Your task to perform on an android device: Go to internet settings Image 0: 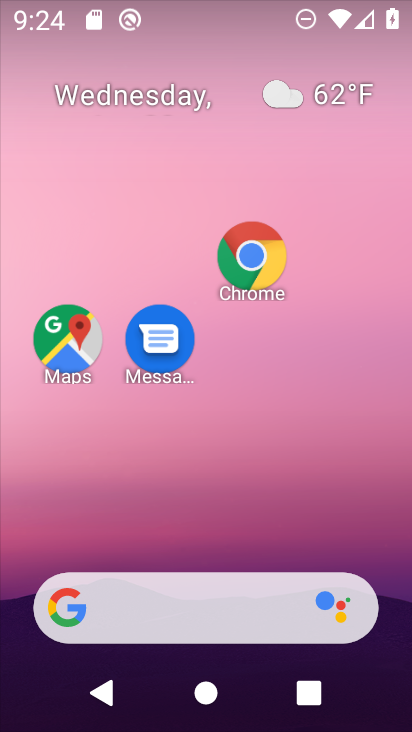
Step 0: drag from (227, 514) to (181, 22)
Your task to perform on an android device: Go to internet settings Image 1: 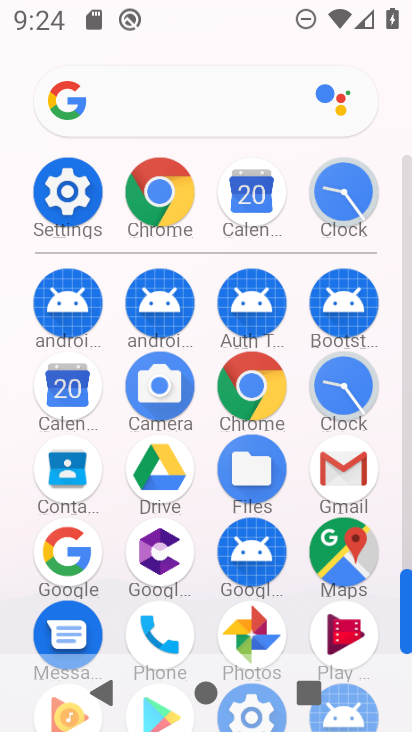
Step 1: click (66, 189)
Your task to perform on an android device: Go to internet settings Image 2: 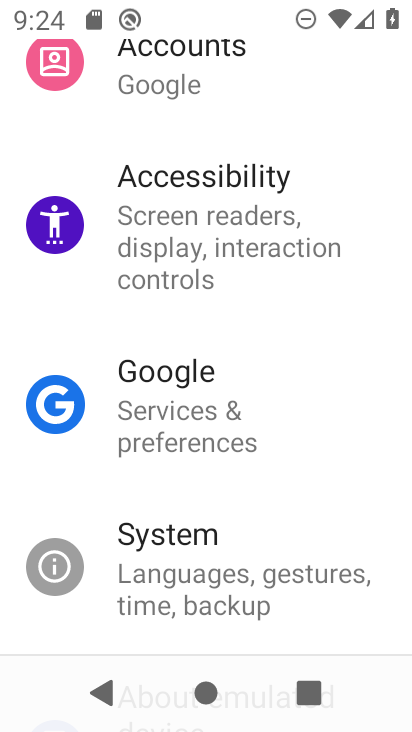
Step 2: drag from (190, 146) to (226, 684)
Your task to perform on an android device: Go to internet settings Image 3: 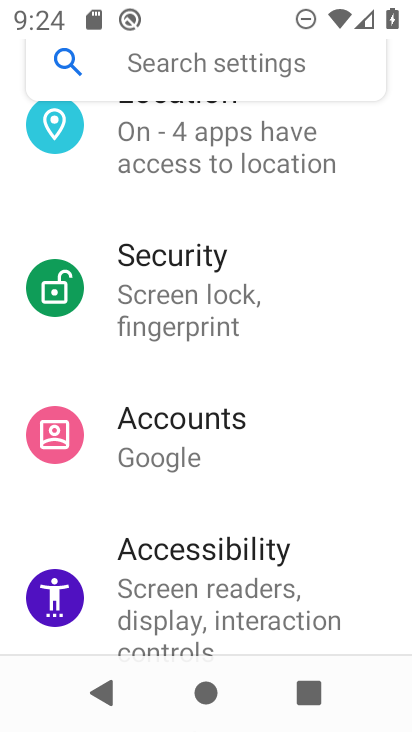
Step 3: drag from (145, 192) to (219, 671)
Your task to perform on an android device: Go to internet settings Image 4: 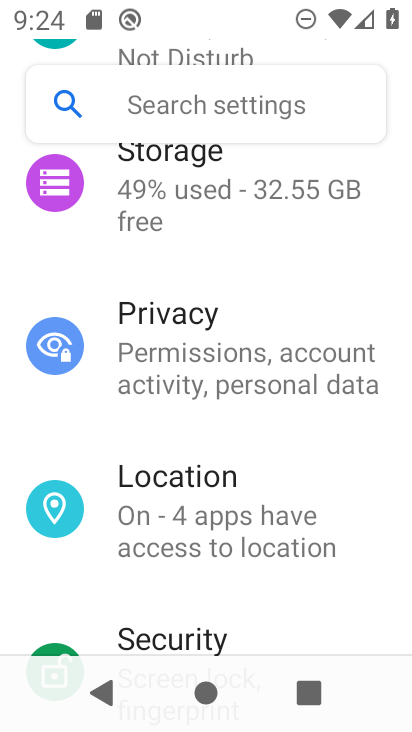
Step 4: drag from (258, 278) to (402, 297)
Your task to perform on an android device: Go to internet settings Image 5: 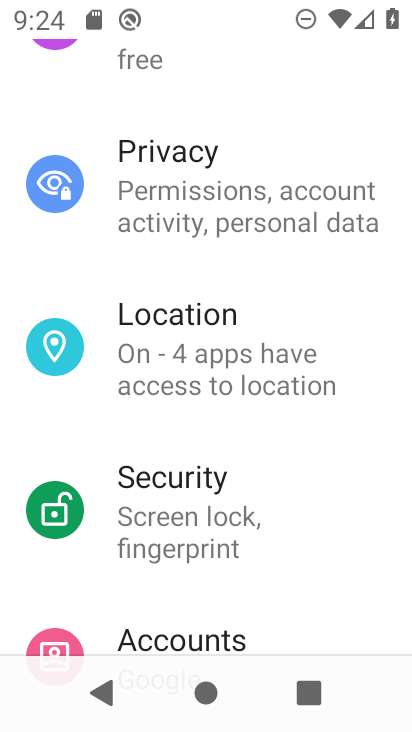
Step 5: drag from (238, 185) to (325, 660)
Your task to perform on an android device: Go to internet settings Image 6: 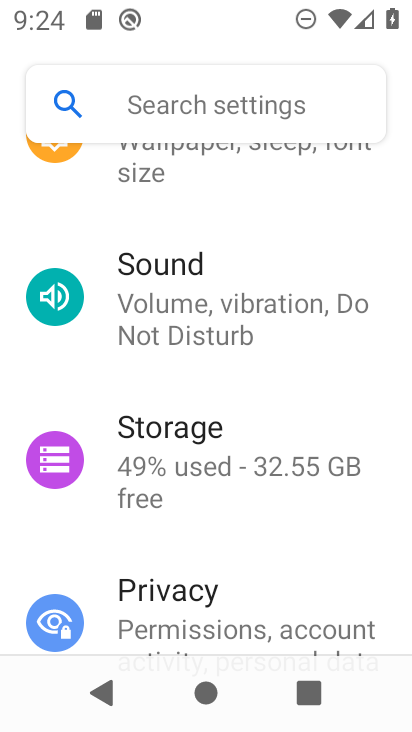
Step 6: drag from (238, 200) to (212, 677)
Your task to perform on an android device: Go to internet settings Image 7: 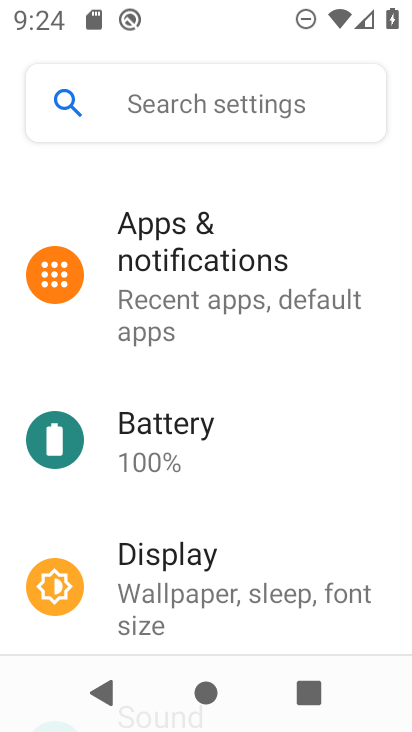
Step 7: drag from (163, 184) to (218, 554)
Your task to perform on an android device: Go to internet settings Image 8: 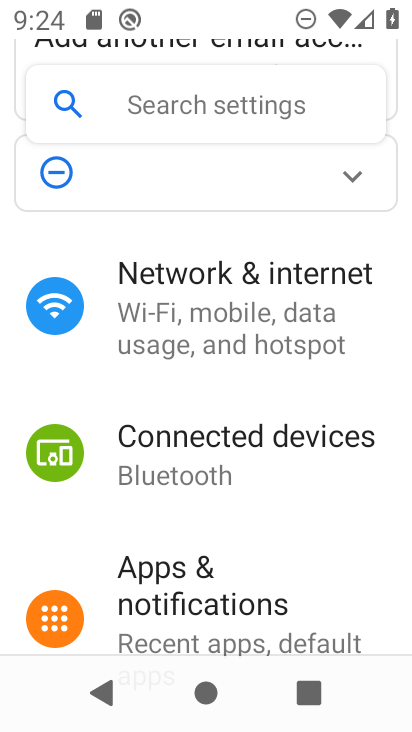
Step 8: click (211, 306)
Your task to perform on an android device: Go to internet settings Image 9: 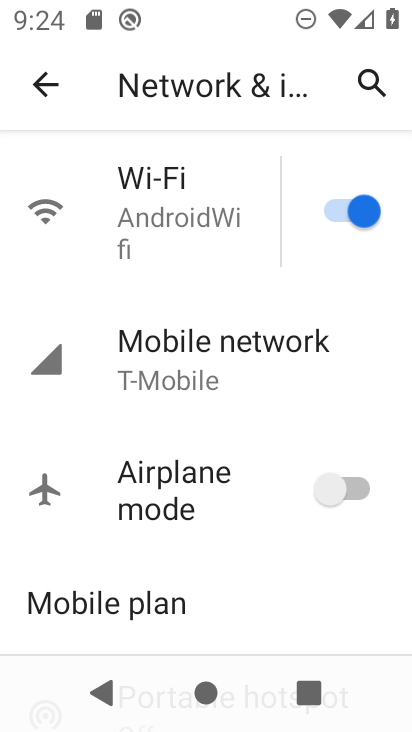
Step 9: click (178, 203)
Your task to perform on an android device: Go to internet settings Image 10: 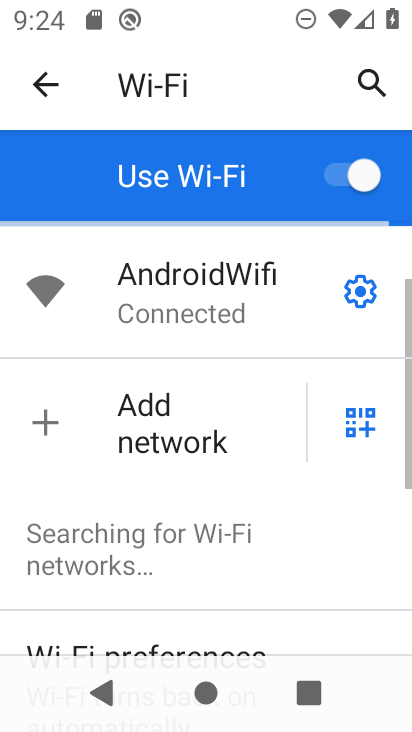
Step 10: click (356, 293)
Your task to perform on an android device: Go to internet settings Image 11: 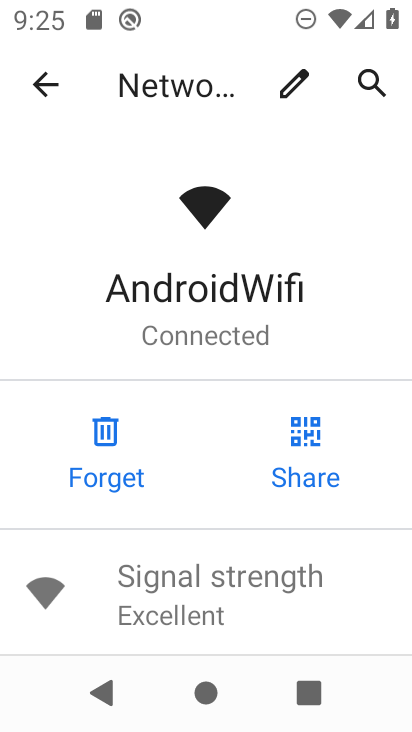
Step 11: task complete